Your task to perform on an android device: Set the phone to "Do not disturb". Image 0: 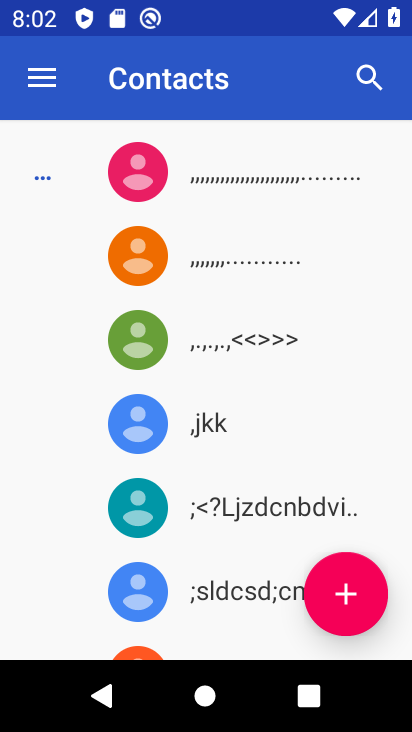
Step 0: press home button
Your task to perform on an android device: Set the phone to "Do not disturb". Image 1: 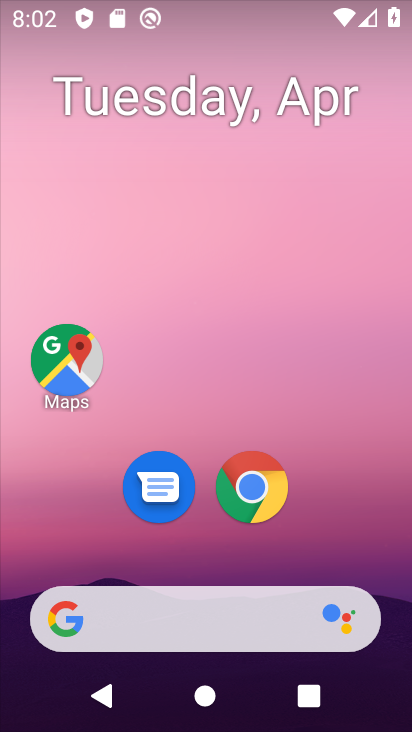
Step 1: drag from (218, 584) to (259, 190)
Your task to perform on an android device: Set the phone to "Do not disturb". Image 2: 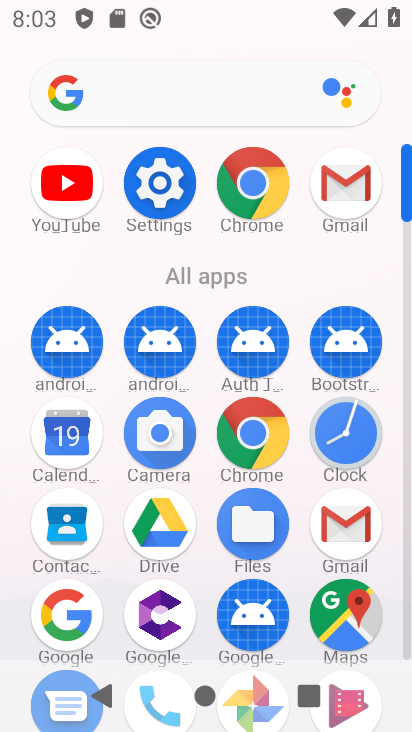
Step 2: click (154, 180)
Your task to perform on an android device: Set the phone to "Do not disturb". Image 3: 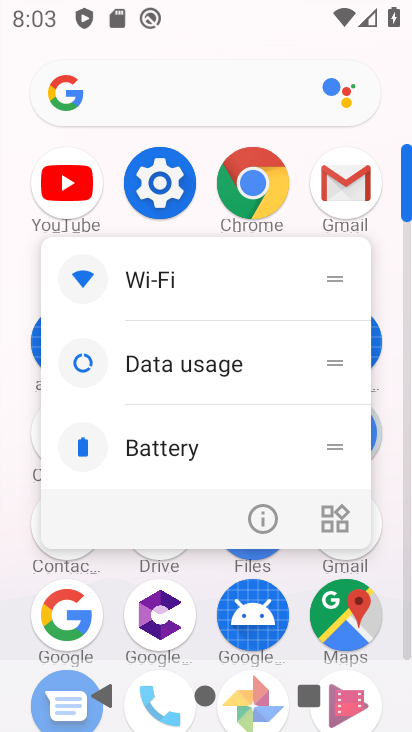
Step 3: click (154, 181)
Your task to perform on an android device: Set the phone to "Do not disturb". Image 4: 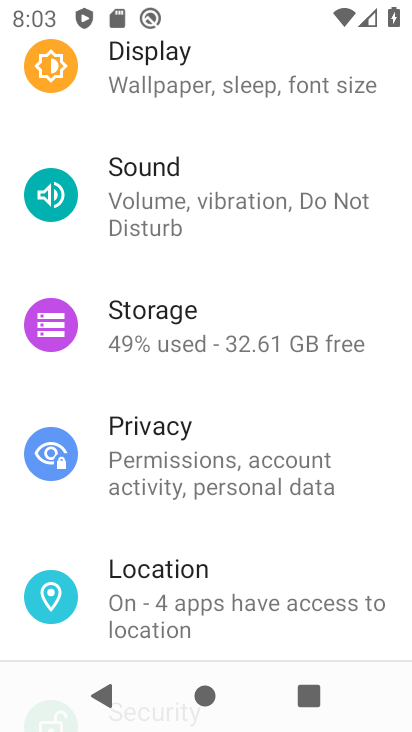
Step 4: click (238, 189)
Your task to perform on an android device: Set the phone to "Do not disturb". Image 5: 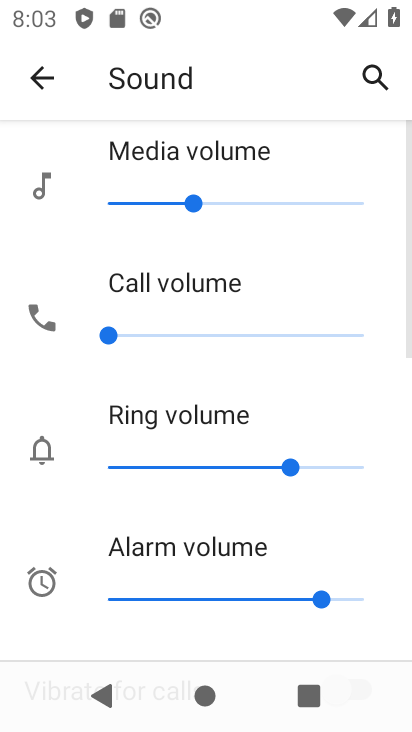
Step 5: drag from (249, 580) to (260, 257)
Your task to perform on an android device: Set the phone to "Do not disturb". Image 6: 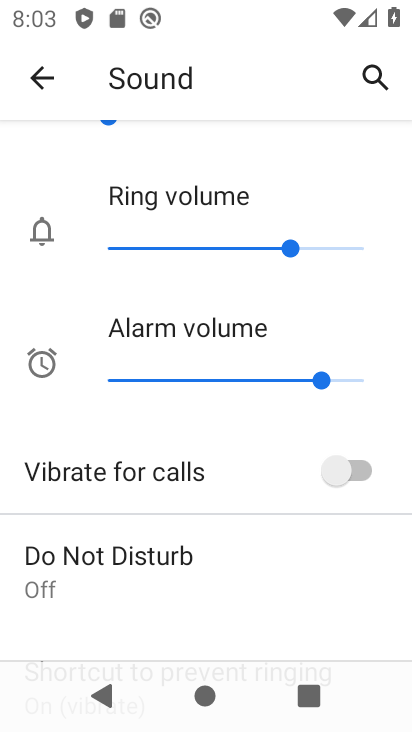
Step 6: click (119, 562)
Your task to perform on an android device: Set the phone to "Do not disturb". Image 7: 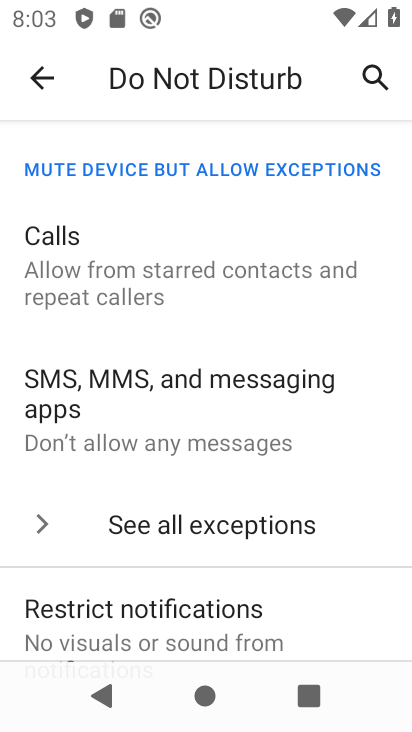
Step 7: drag from (215, 638) to (224, 387)
Your task to perform on an android device: Set the phone to "Do not disturb". Image 8: 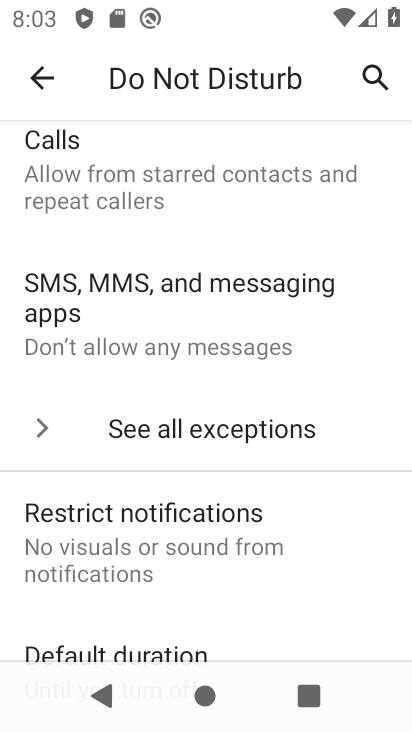
Step 8: drag from (178, 621) to (182, 324)
Your task to perform on an android device: Set the phone to "Do not disturb". Image 9: 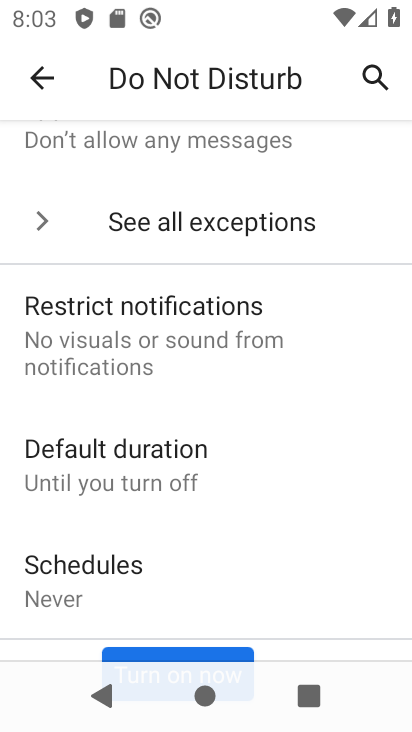
Step 9: drag from (163, 538) to (163, 300)
Your task to perform on an android device: Set the phone to "Do not disturb". Image 10: 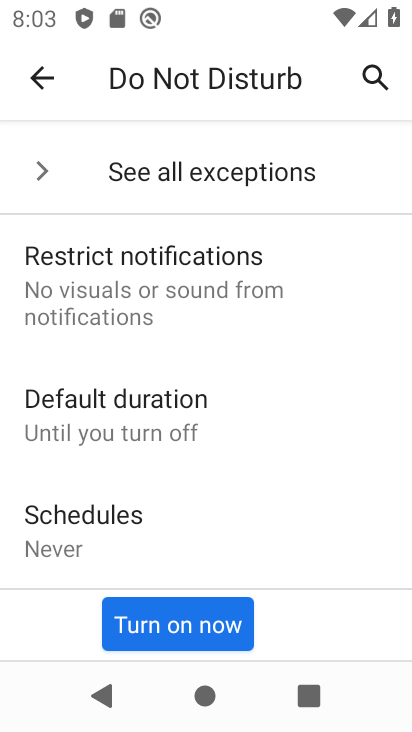
Step 10: click (136, 625)
Your task to perform on an android device: Set the phone to "Do not disturb". Image 11: 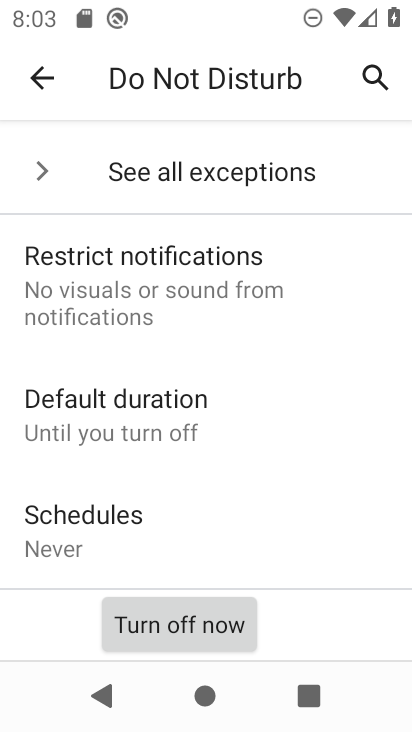
Step 11: task complete